Your task to perform on an android device: Open my contact list Image 0: 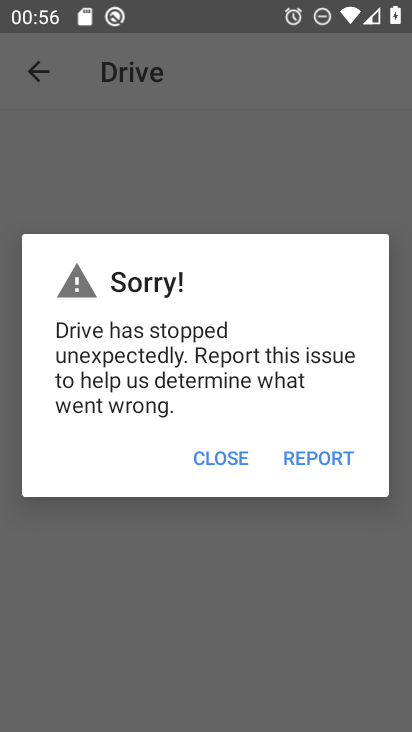
Step 0: press home button
Your task to perform on an android device: Open my contact list Image 1: 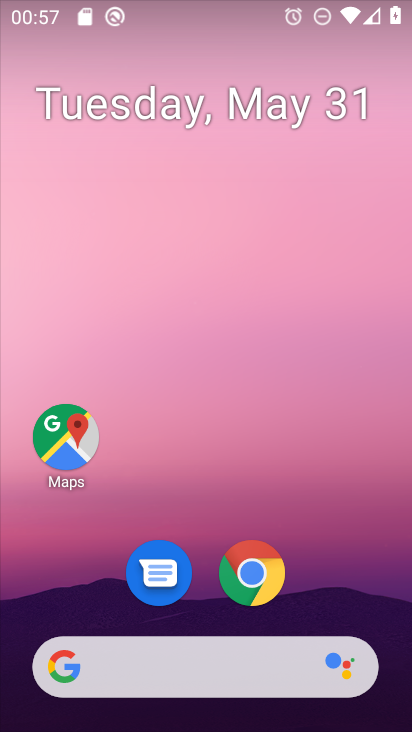
Step 1: drag from (211, 618) to (390, 66)
Your task to perform on an android device: Open my contact list Image 2: 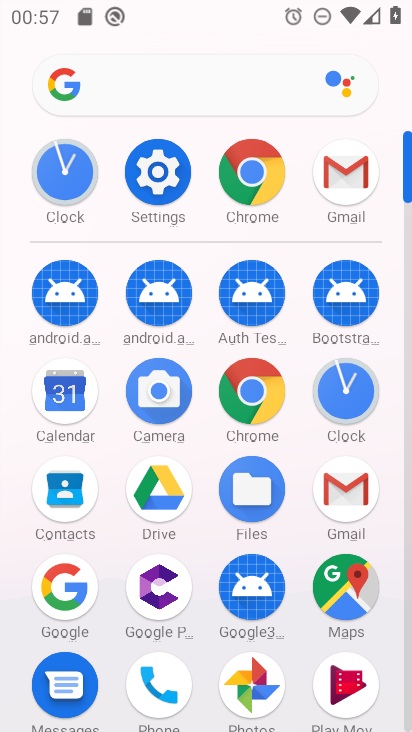
Step 2: click (47, 513)
Your task to perform on an android device: Open my contact list Image 3: 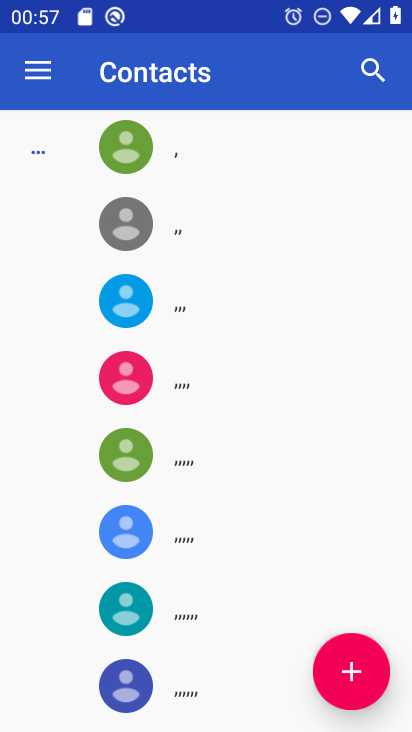
Step 3: task complete